Your task to perform on an android device: move a message to another label in the gmail app Image 0: 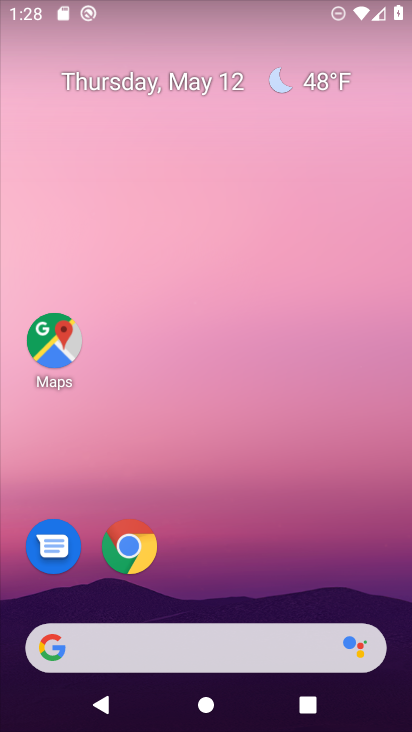
Step 0: drag from (282, 668) to (303, 221)
Your task to perform on an android device: move a message to another label in the gmail app Image 1: 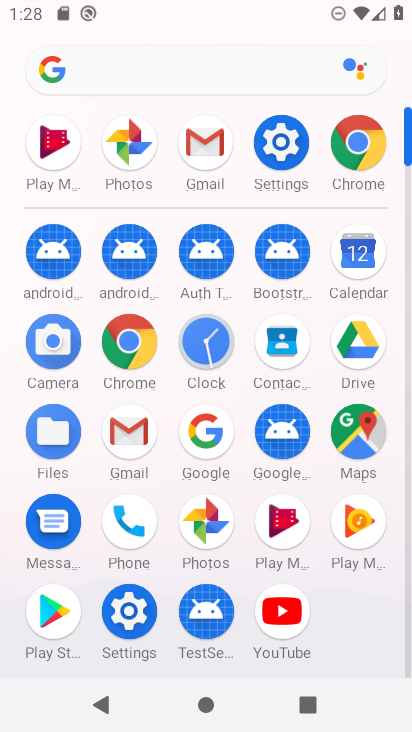
Step 1: click (137, 440)
Your task to perform on an android device: move a message to another label in the gmail app Image 2: 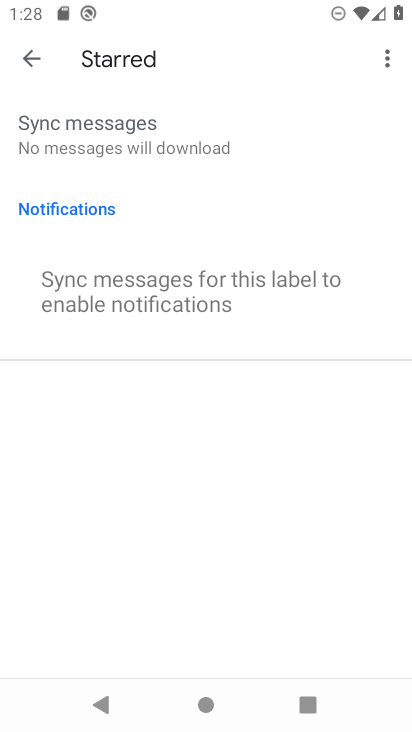
Step 2: click (33, 61)
Your task to perform on an android device: move a message to another label in the gmail app Image 3: 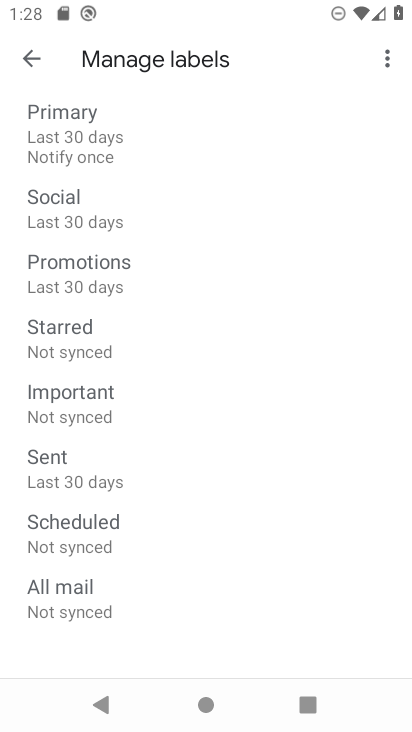
Step 3: click (27, 65)
Your task to perform on an android device: move a message to another label in the gmail app Image 4: 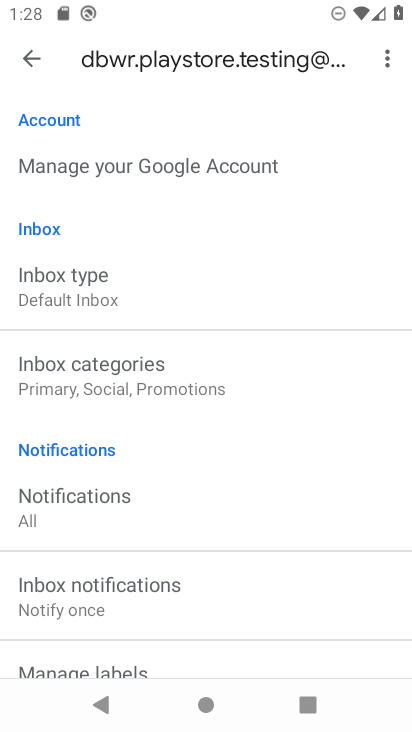
Step 4: click (128, 663)
Your task to perform on an android device: move a message to another label in the gmail app Image 5: 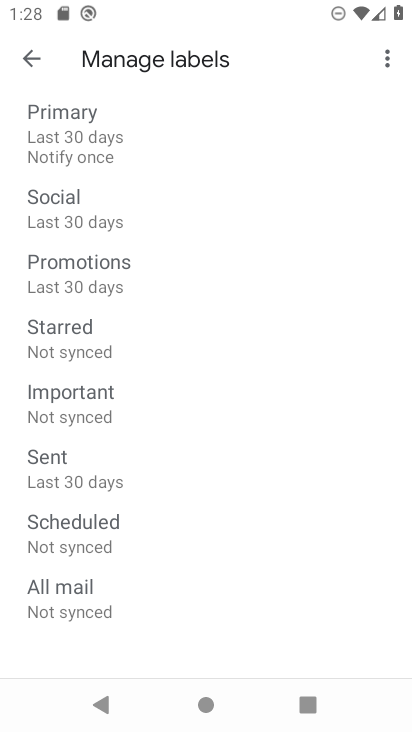
Step 5: click (95, 393)
Your task to perform on an android device: move a message to another label in the gmail app Image 6: 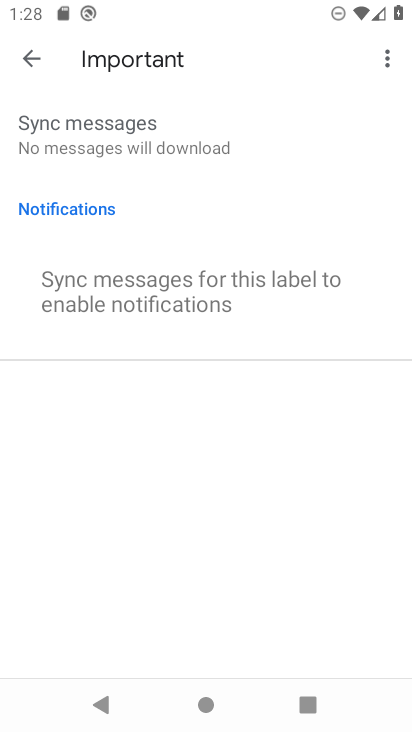
Step 6: task complete